Your task to perform on an android device: add a contact Image 0: 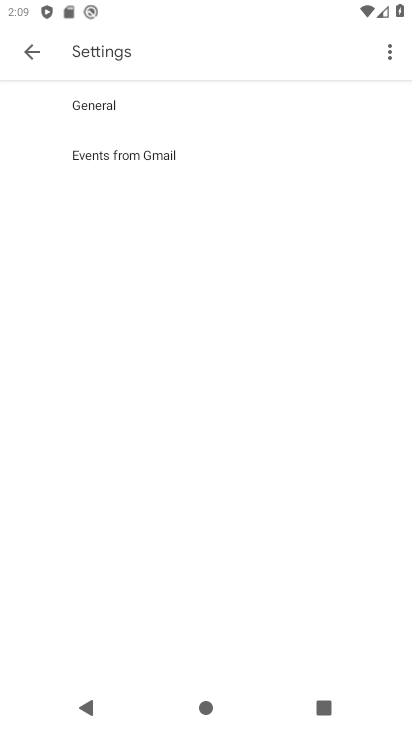
Step 0: press home button
Your task to perform on an android device: add a contact Image 1: 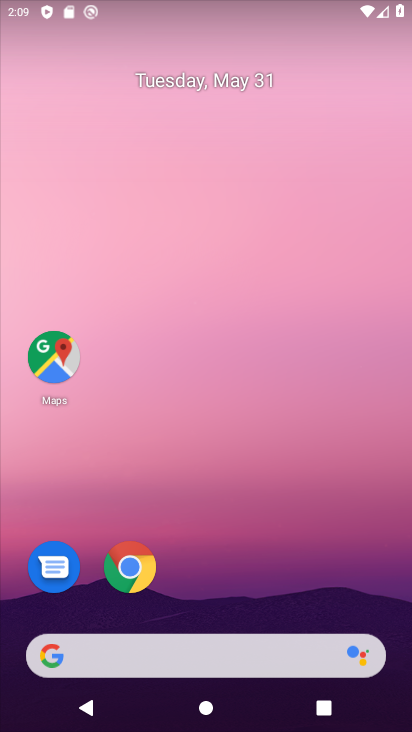
Step 1: drag from (244, 615) to (290, 69)
Your task to perform on an android device: add a contact Image 2: 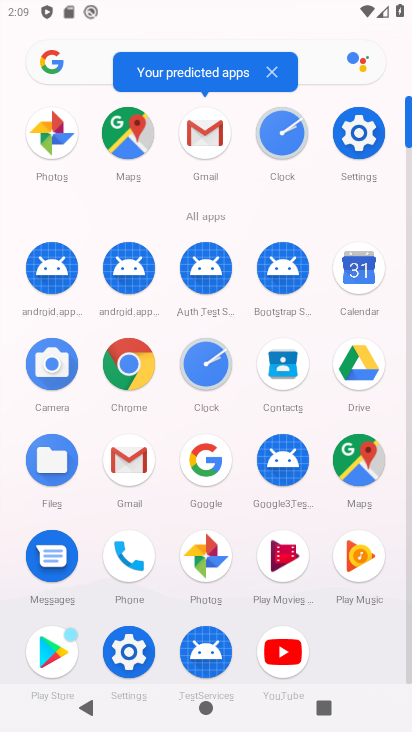
Step 2: click (292, 357)
Your task to perform on an android device: add a contact Image 3: 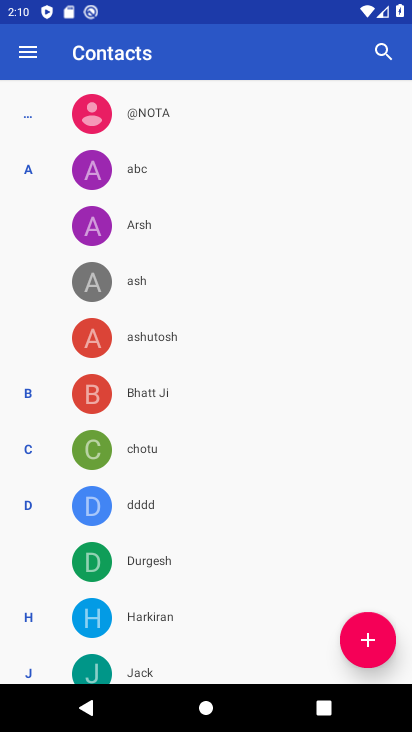
Step 3: click (364, 633)
Your task to perform on an android device: add a contact Image 4: 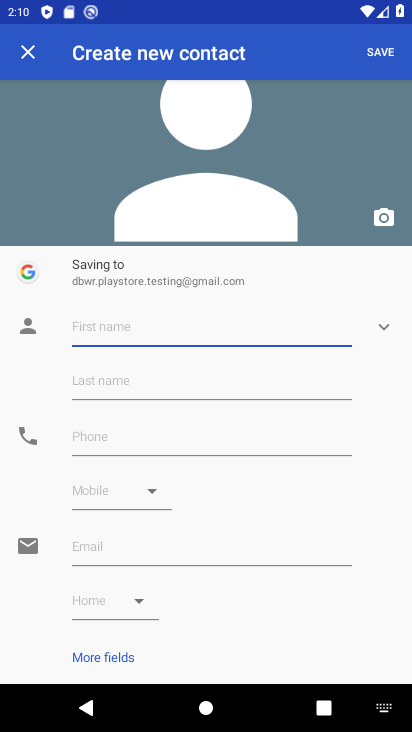
Step 4: click (201, 334)
Your task to perform on an android device: add a contact Image 5: 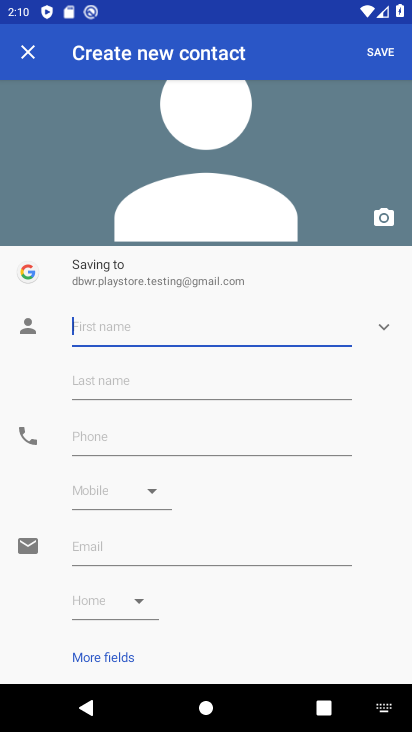
Step 5: type "bjhjbhk"
Your task to perform on an android device: add a contact Image 6: 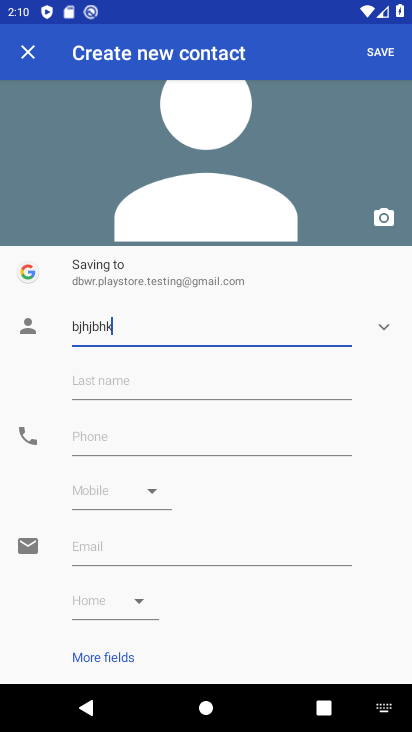
Step 6: click (274, 433)
Your task to perform on an android device: add a contact Image 7: 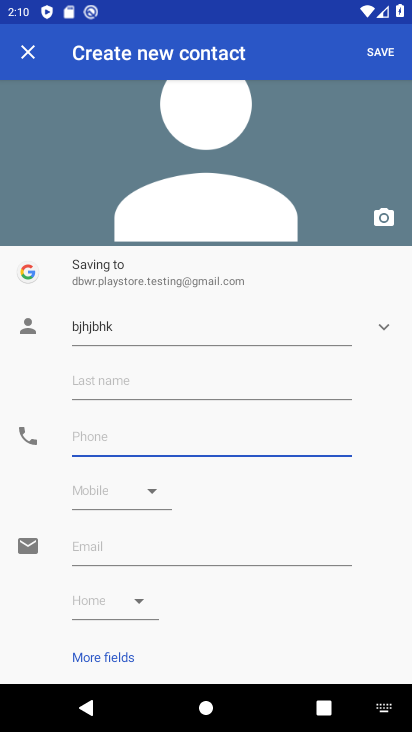
Step 7: type "678679"
Your task to perform on an android device: add a contact Image 8: 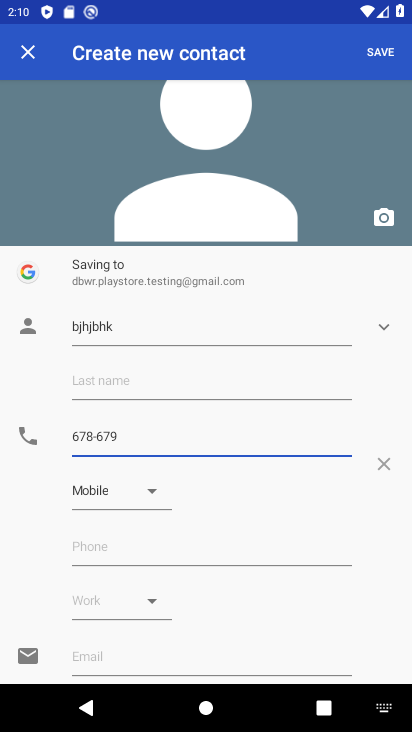
Step 8: click (385, 54)
Your task to perform on an android device: add a contact Image 9: 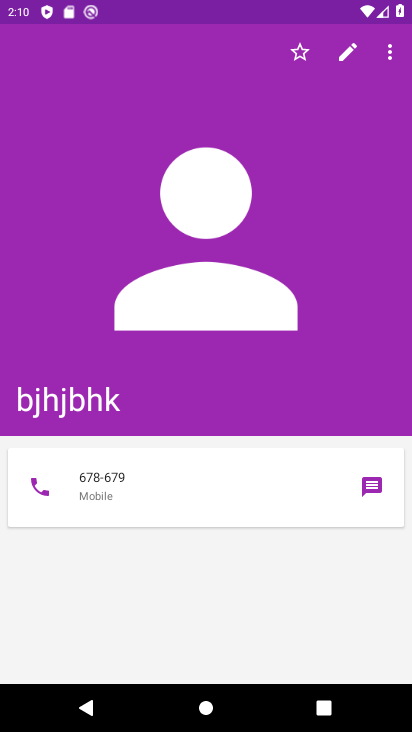
Step 9: task complete